Your task to perform on an android device: Open the calendar and show me this week's events? Image 0: 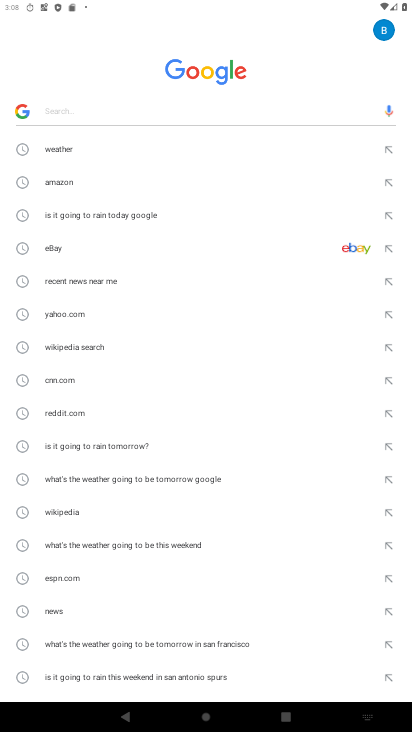
Step 0: press home button
Your task to perform on an android device: Open the calendar and show me this week's events? Image 1: 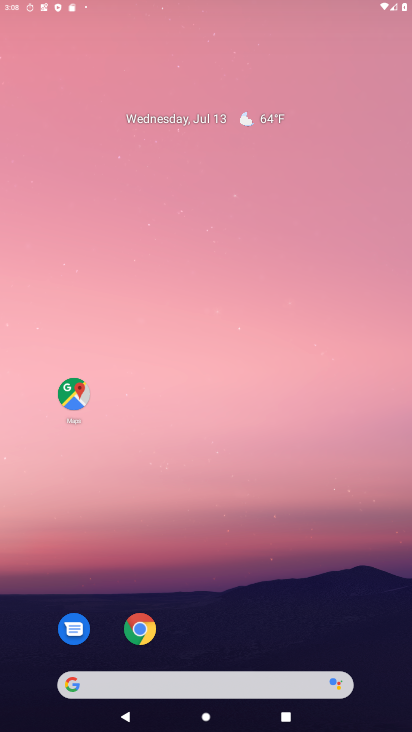
Step 1: drag from (216, 666) to (314, 109)
Your task to perform on an android device: Open the calendar and show me this week's events? Image 2: 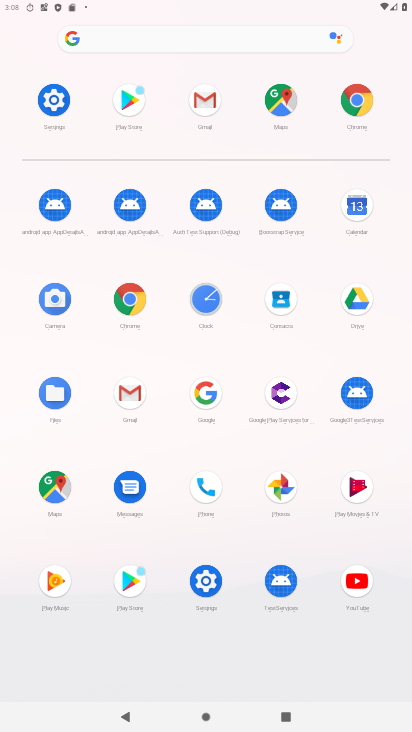
Step 2: click (362, 206)
Your task to perform on an android device: Open the calendar and show me this week's events? Image 3: 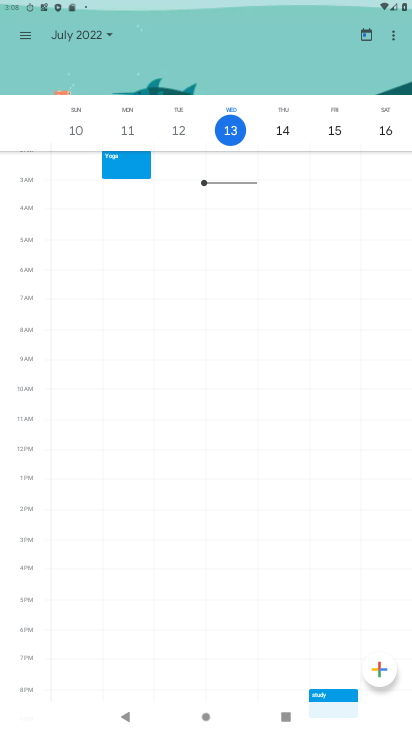
Step 3: click (109, 31)
Your task to perform on an android device: Open the calendar and show me this week's events? Image 4: 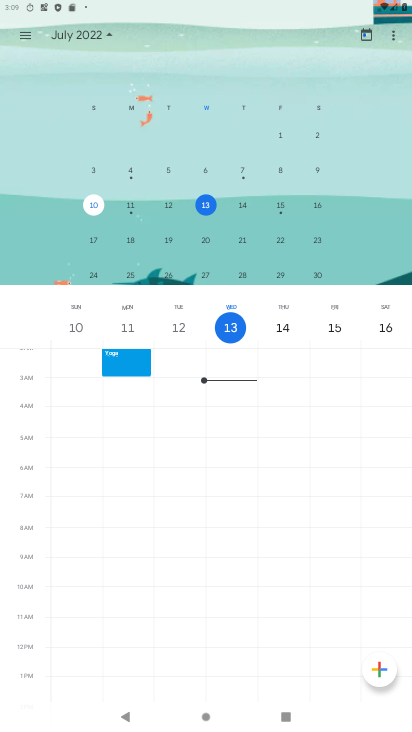
Step 4: drag from (303, 218) to (224, 206)
Your task to perform on an android device: Open the calendar and show me this week's events? Image 5: 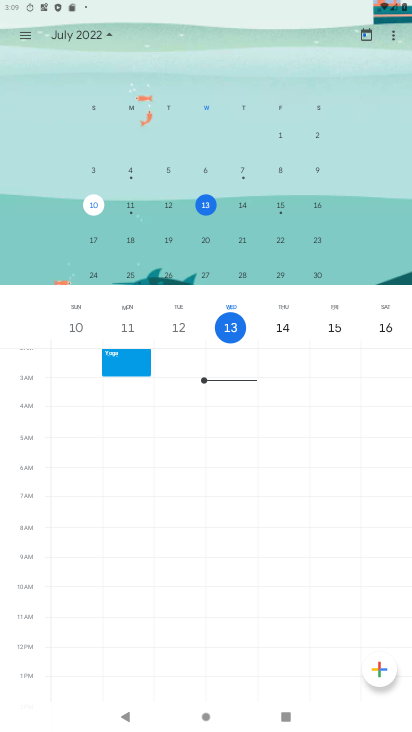
Step 5: click (321, 206)
Your task to perform on an android device: Open the calendar and show me this week's events? Image 6: 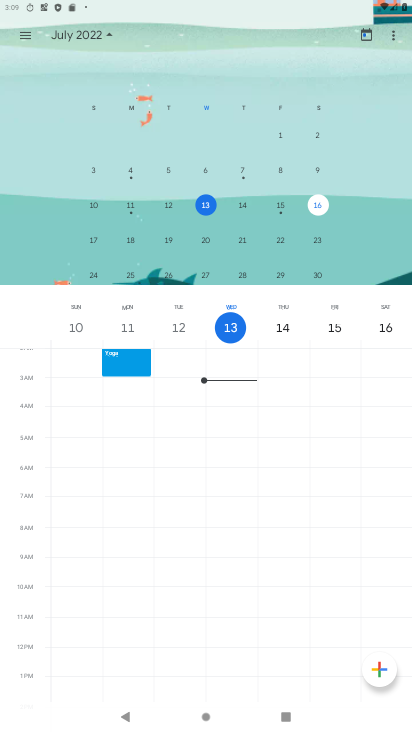
Step 6: task complete